Your task to perform on an android device: Open Maps and search for coffee Image 0: 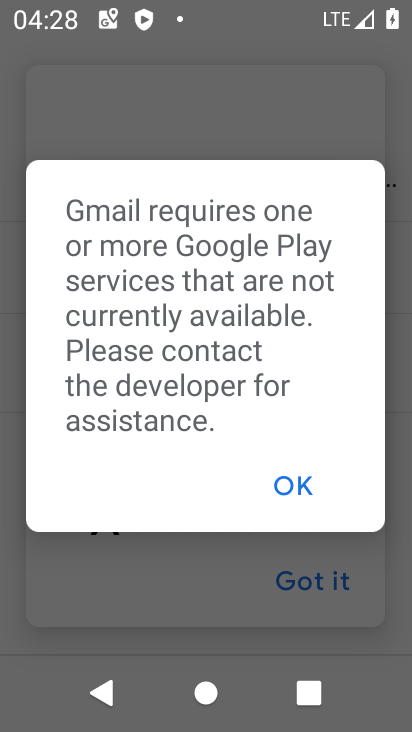
Step 0: press home button
Your task to perform on an android device: Open Maps and search for coffee Image 1: 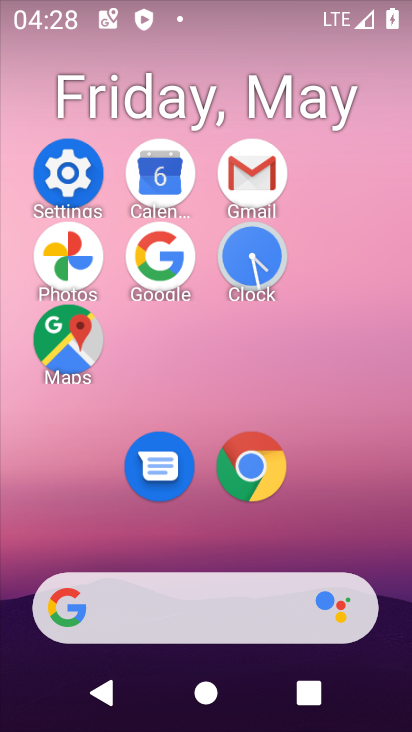
Step 1: click (77, 361)
Your task to perform on an android device: Open Maps and search for coffee Image 2: 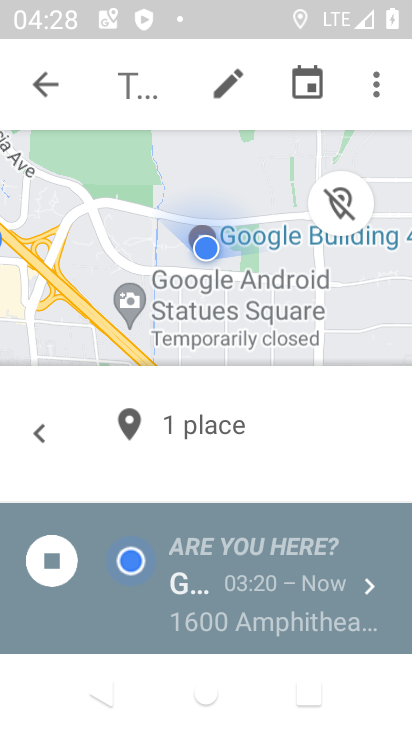
Step 2: click (62, 88)
Your task to perform on an android device: Open Maps and search for coffee Image 3: 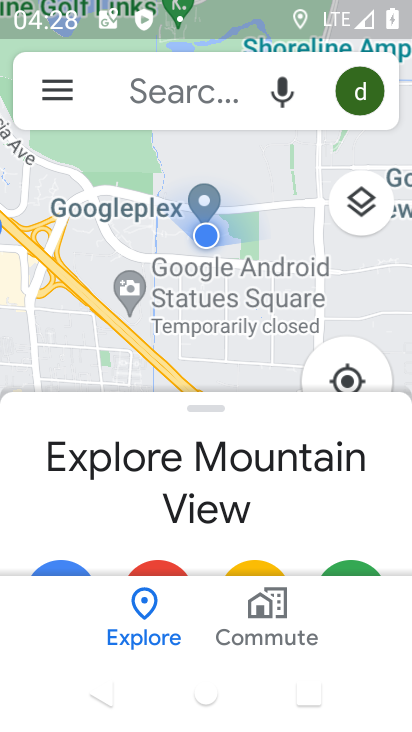
Step 3: click (149, 109)
Your task to perform on an android device: Open Maps and search for coffee Image 4: 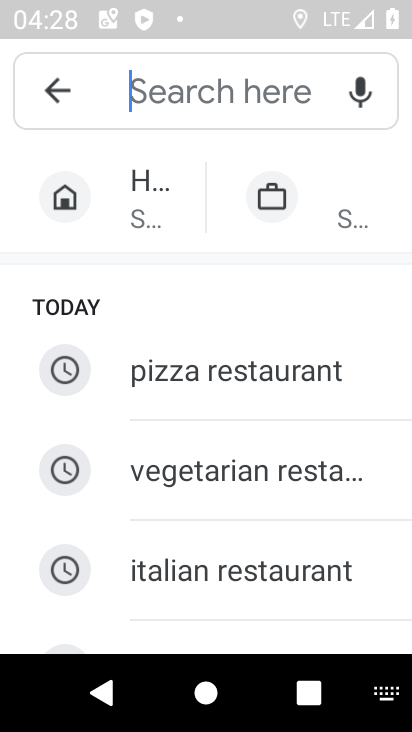
Step 4: type "coffee"
Your task to perform on an android device: Open Maps and search for coffee Image 5: 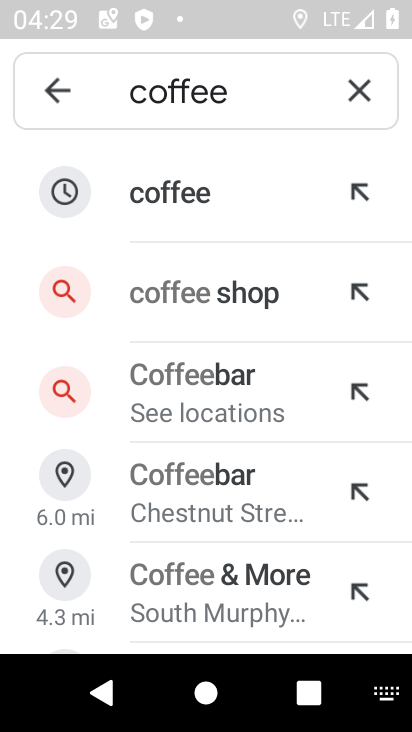
Step 5: task complete